Your task to perform on an android device: turn off translation in the chrome app Image 0: 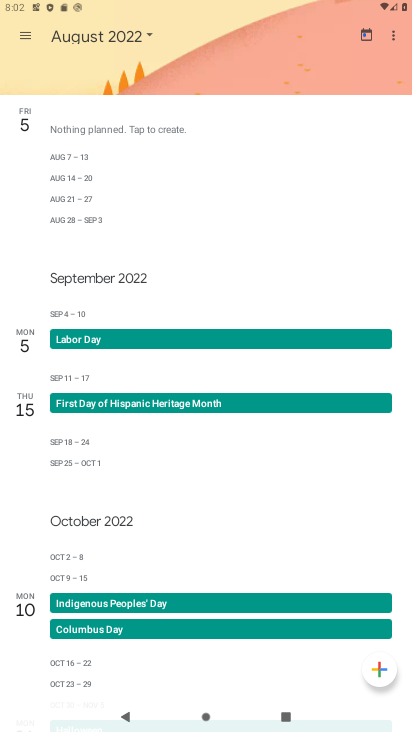
Step 0: press home button
Your task to perform on an android device: turn off translation in the chrome app Image 1: 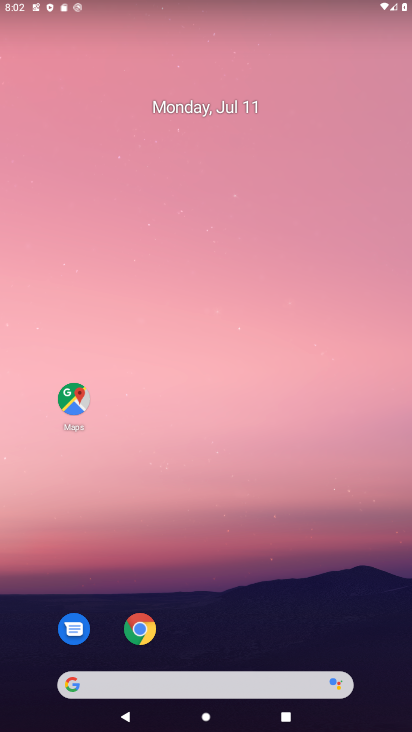
Step 1: click (139, 627)
Your task to perform on an android device: turn off translation in the chrome app Image 2: 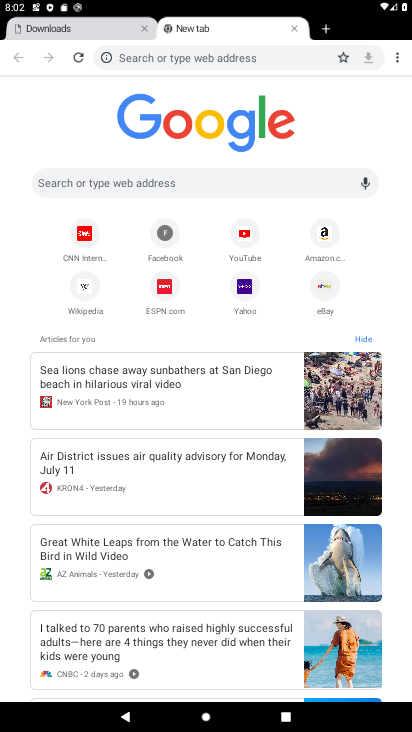
Step 2: click (394, 56)
Your task to perform on an android device: turn off translation in the chrome app Image 3: 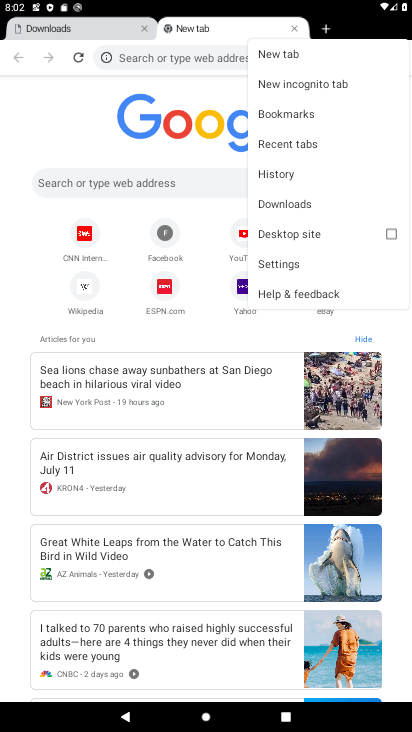
Step 3: click (282, 264)
Your task to perform on an android device: turn off translation in the chrome app Image 4: 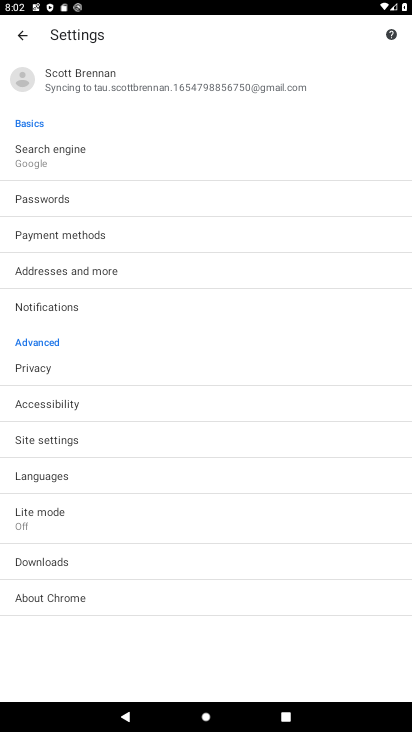
Step 4: click (54, 480)
Your task to perform on an android device: turn off translation in the chrome app Image 5: 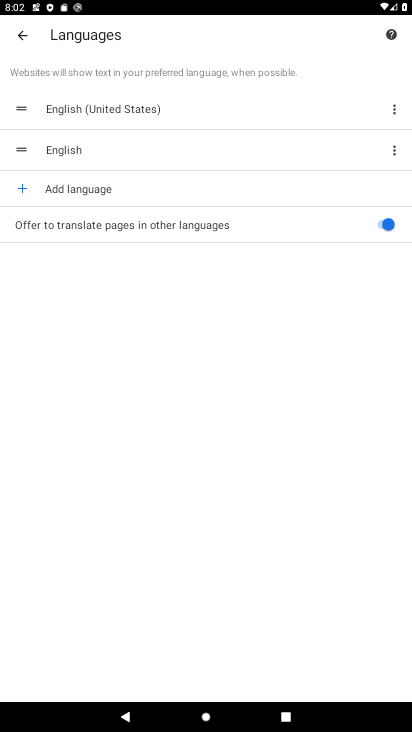
Step 5: click (383, 222)
Your task to perform on an android device: turn off translation in the chrome app Image 6: 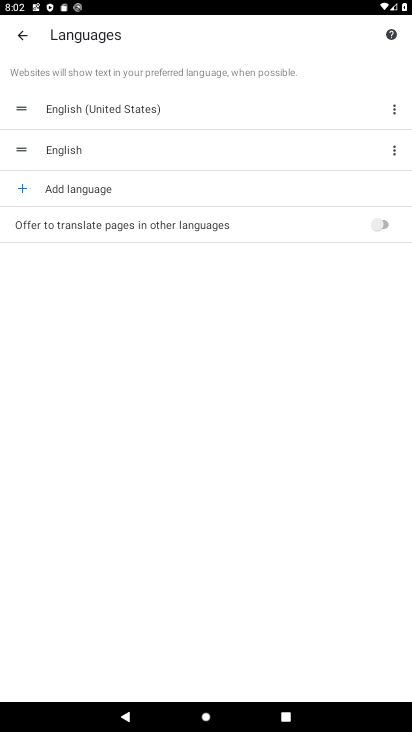
Step 6: task complete